Your task to perform on an android device: check the backup settings in the google photos Image 0: 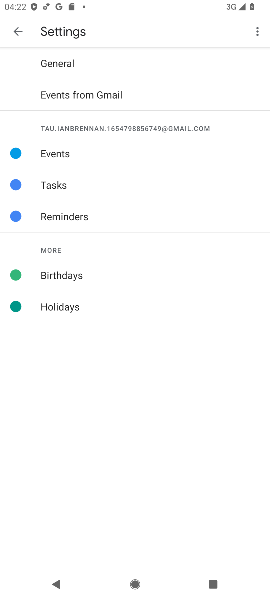
Step 0: press home button
Your task to perform on an android device: check the backup settings in the google photos Image 1: 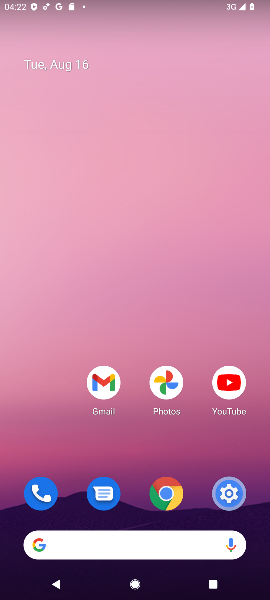
Step 1: drag from (66, 495) to (68, 117)
Your task to perform on an android device: check the backup settings in the google photos Image 2: 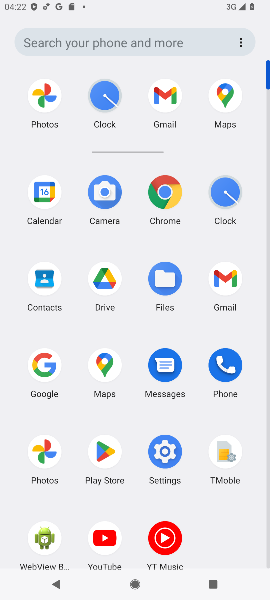
Step 2: click (47, 453)
Your task to perform on an android device: check the backup settings in the google photos Image 3: 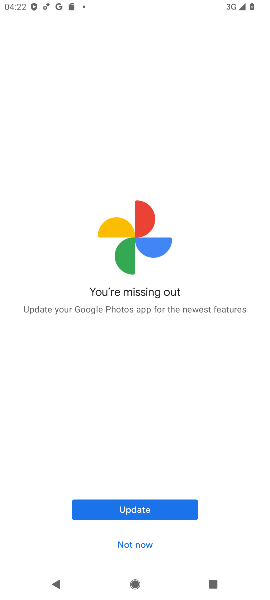
Step 3: click (147, 543)
Your task to perform on an android device: check the backup settings in the google photos Image 4: 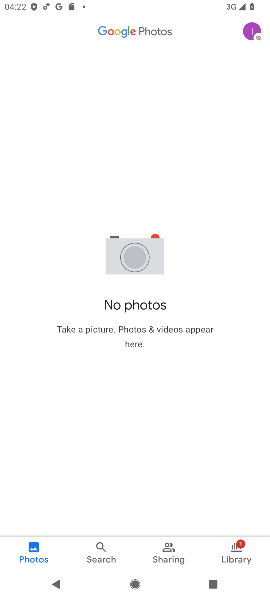
Step 4: click (246, 30)
Your task to perform on an android device: check the backup settings in the google photos Image 5: 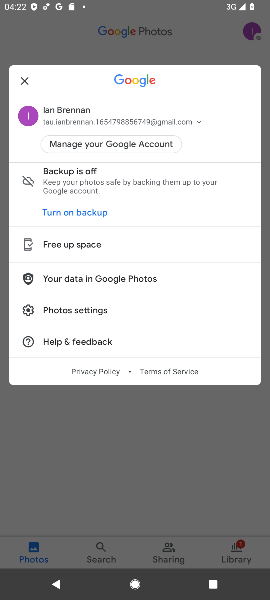
Step 5: click (89, 313)
Your task to perform on an android device: check the backup settings in the google photos Image 6: 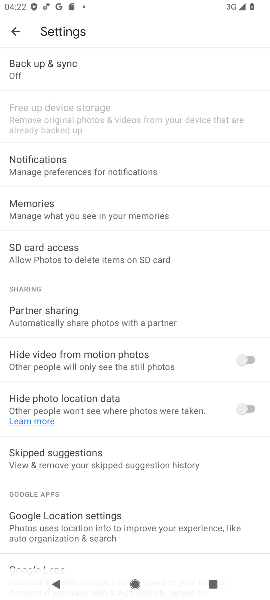
Step 6: click (68, 74)
Your task to perform on an android device: check the backup settings in the google photos Image 7: 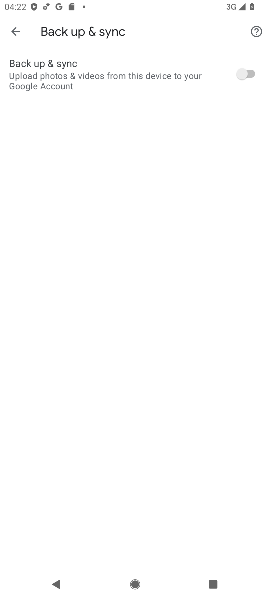
Step 7: click (147, 73)
Your task to perform on an android device: check the backup settings in the google photos Image 8: 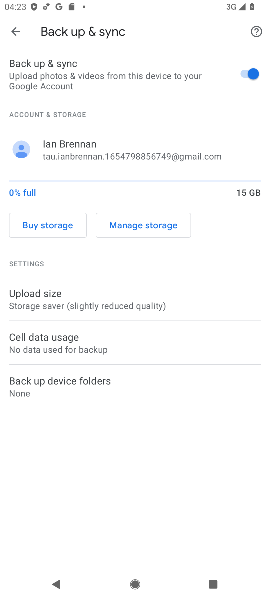
Step 8: task complete